Your task to perform on an android device: Go to Yahoo.com Image 0: 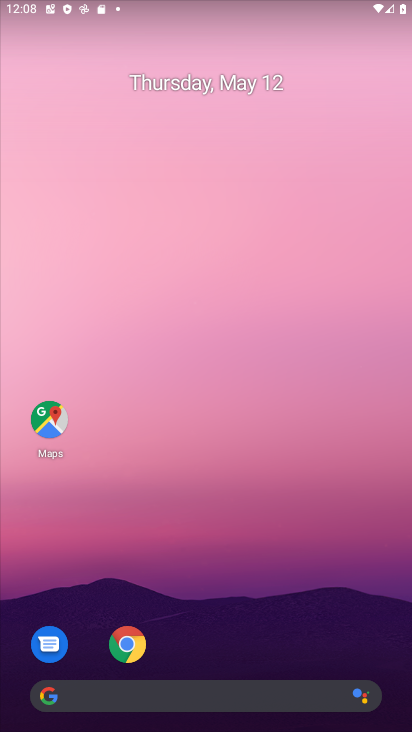
Step 0: drag from (305, 620) to (341, 222)
Your task to perform on an android device: Go to Yahoo.com Image 1: 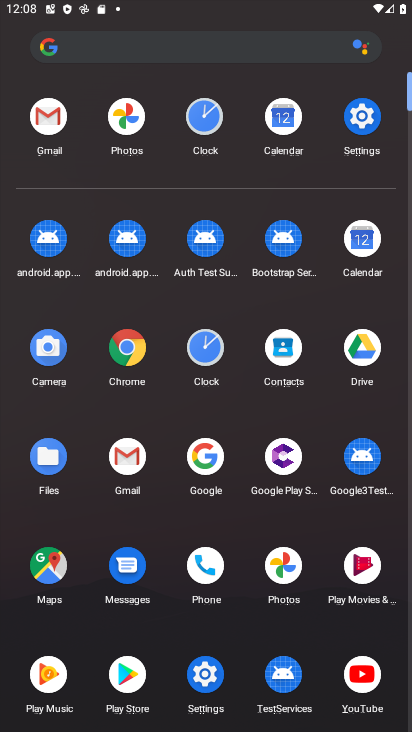
Step 1: click (130, 351)
Your task to perform on an android device: Go to Yahoo.com Image 2: 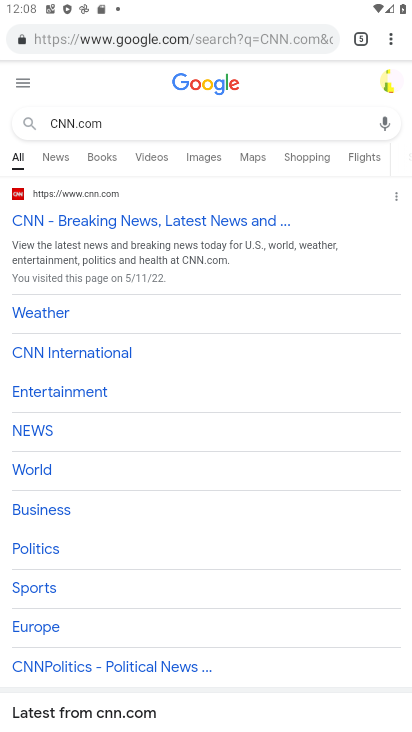
Step 2: click (239, 46)
Your task to perform on an android device: Go to Yahoo.com Image 3: 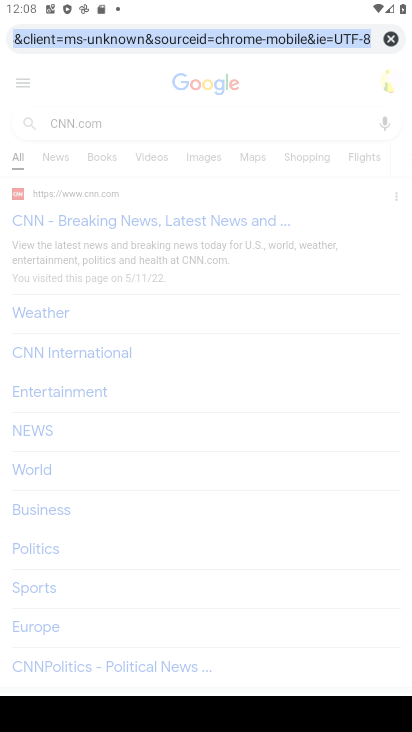
Step 3: type "yahoo.com"
Your task to perform on an android device: Go to Yahoo.com Image 4: 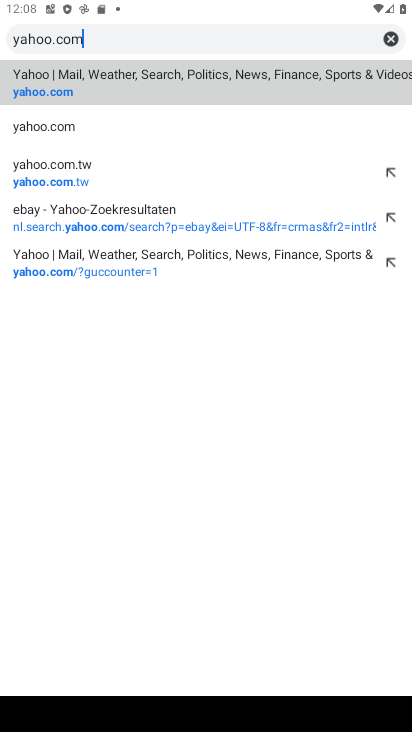
Step 4: click (170, 91)
Your task to perform on an android device: Go to Yahoo.com Image 5: 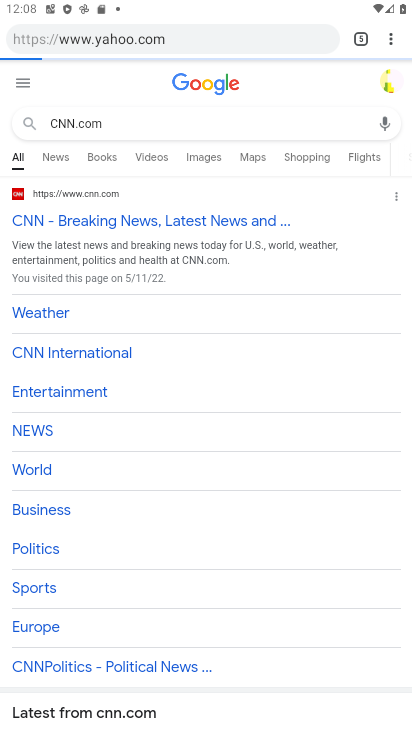
Step 5: task complete